Your task to perform on an android device: Open CNN.com Image 0: 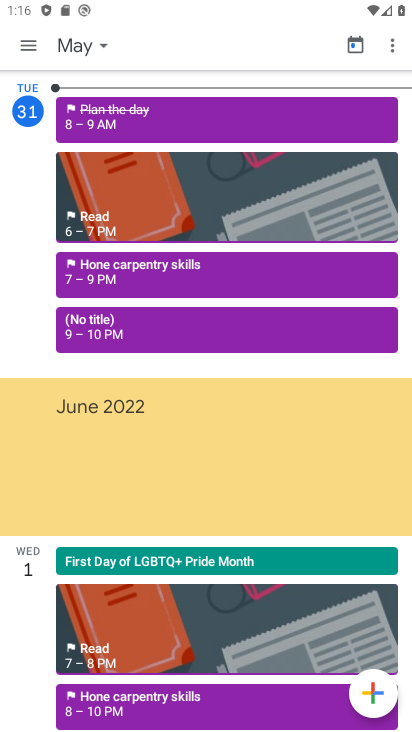
Step 0: press back button
Your task to perform on an android device: Open CNN.com Image 1: 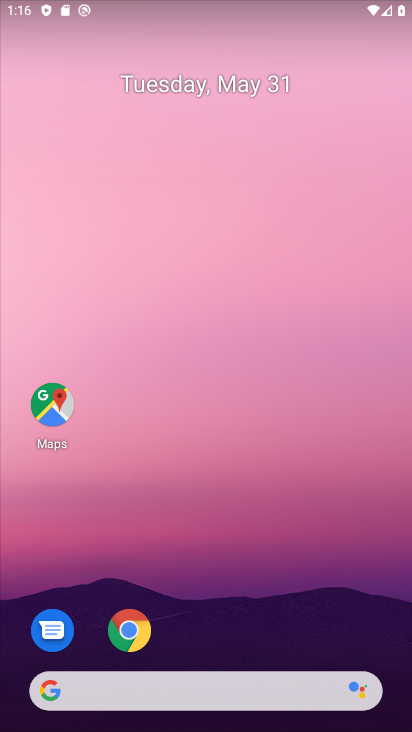
Step 1: drag from (249, 566) to (265, 42)
Your task to perform on an android device: Open CNN.com Image 2: 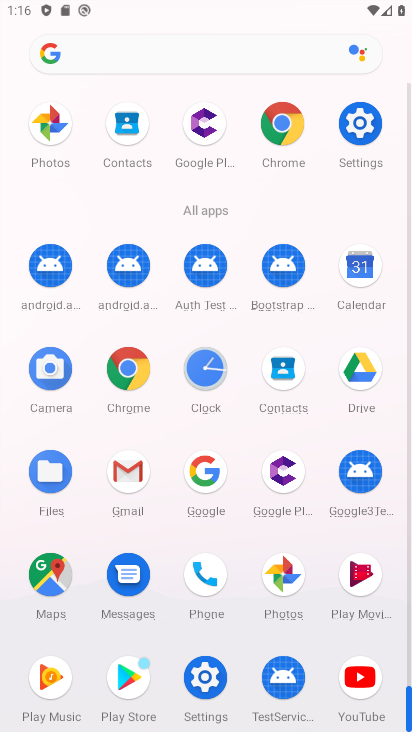
Step 2: click (278, 115)
Your task to perform on an android device: Open CNN.com Image 3: 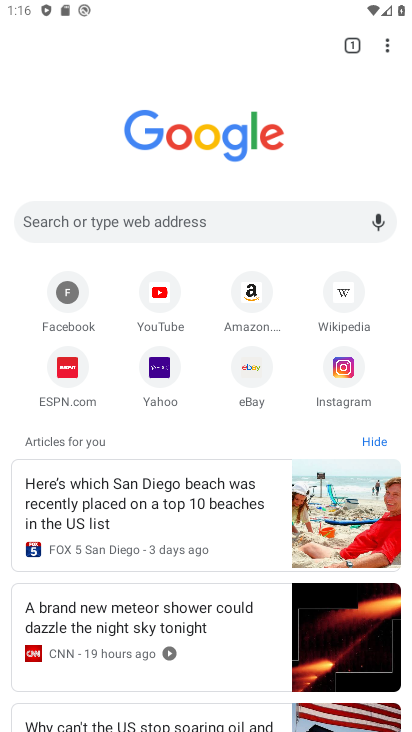
Step 3: click (231, 217)
Your task to perform on an android device: Open CNN.com Image 4: 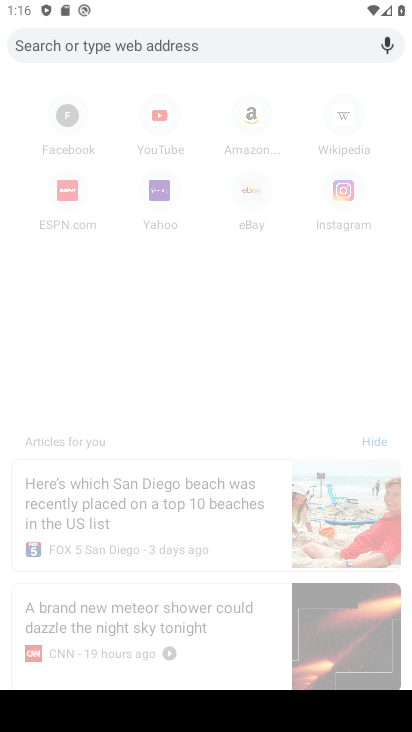
Step 4: type "CNN.com"
Your task to perform on an android device: Open CNN.com Image 5: 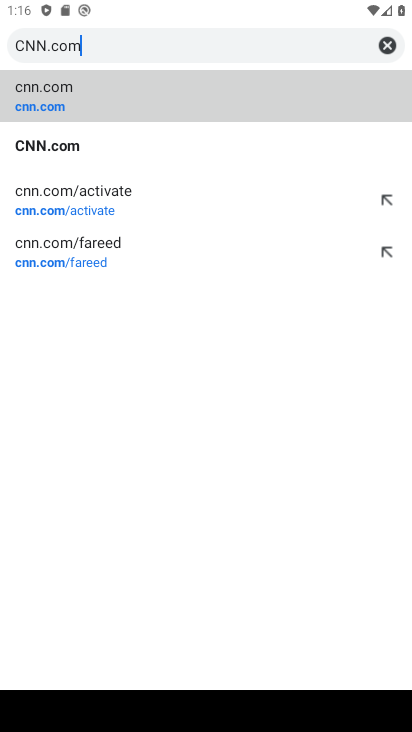
Step 5: type ""
Your task to perform on an android device: Open CNN.com Image 6: 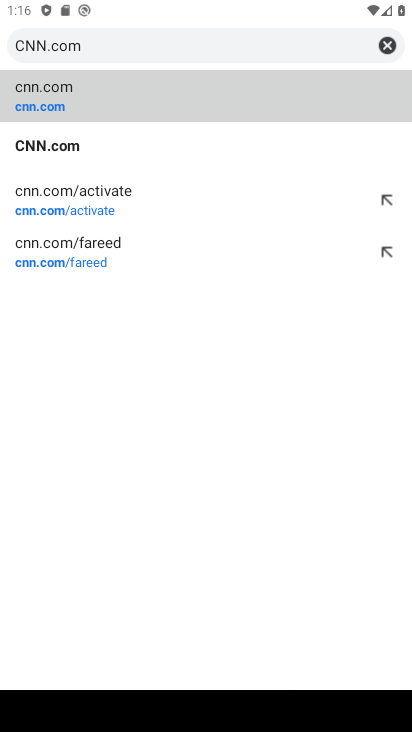
Step 6: click (67, 102)
Your task to perform on an android device: Open CNN.com Image 7: 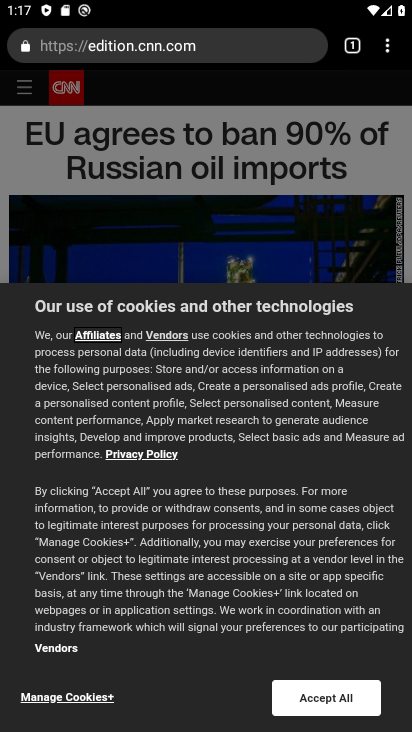
Step 7: click (338, 696)
Your task to perform on an android device: Open CNN.com Image 8: 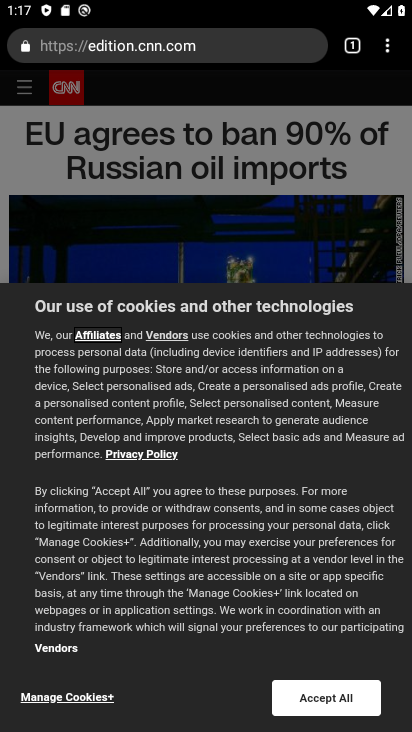
Step 8: task complete